Your task to perform on an android device: open app "Microsoft Excel" (install if not already installed) Image 0: 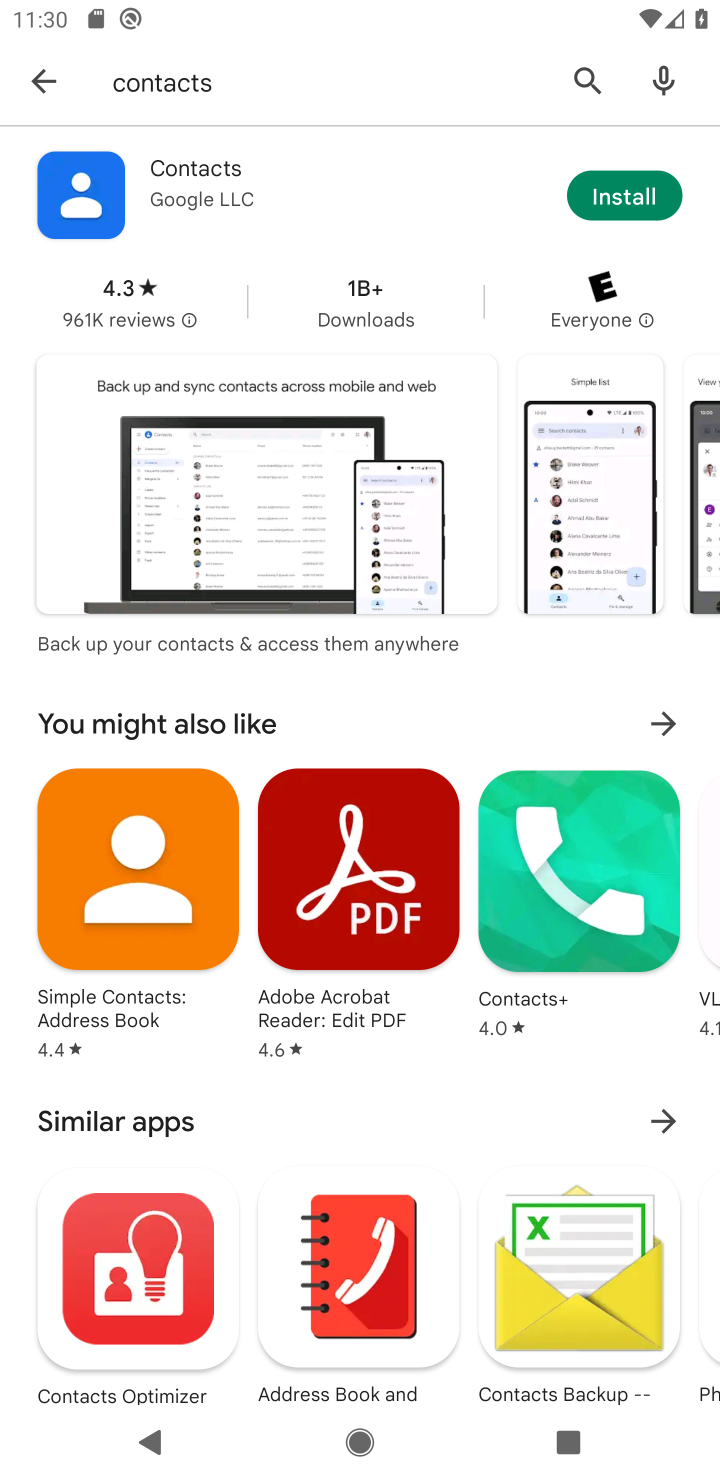
Step 0: press home button
Your task to perform on an android device: open app "Microsoft Excel" (install if not already installed) Image 1: 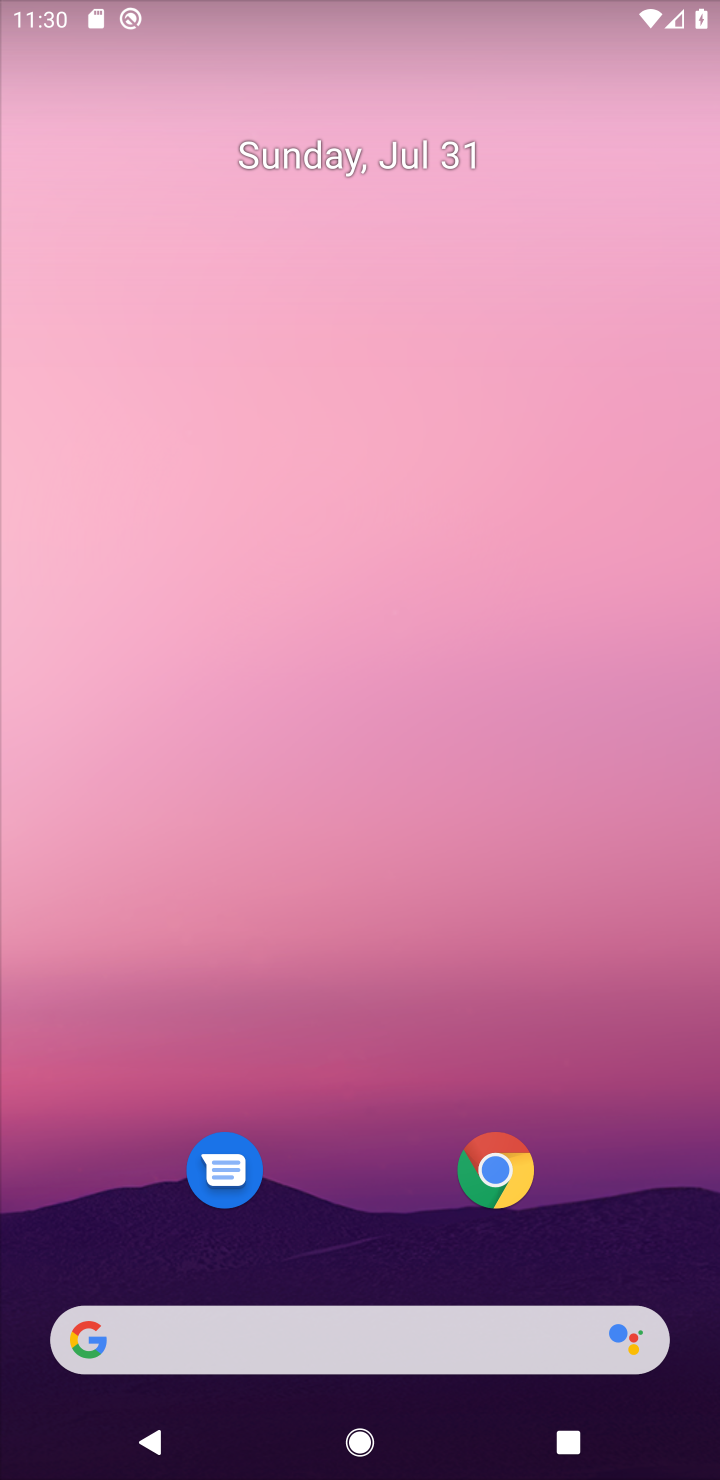
Step 1: drag from (645, 1142) to (347, 28)
Your task to perform on an android device: open app "Microsoft Excel" (install if not already installed) Image 2: 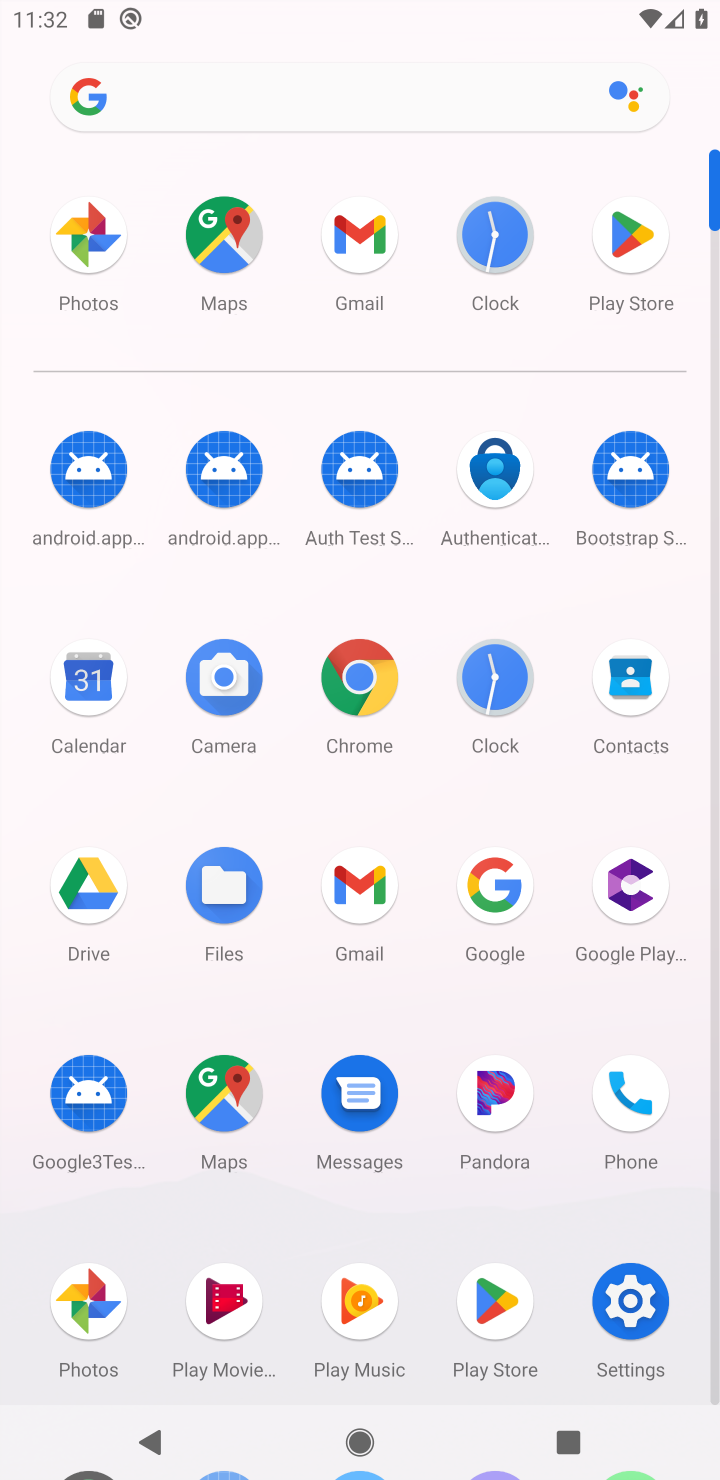
Step 2: click (630, 257)
Your task to perform on an android device: open app "Microsoft Excel" (install if not already installed) Image 3: 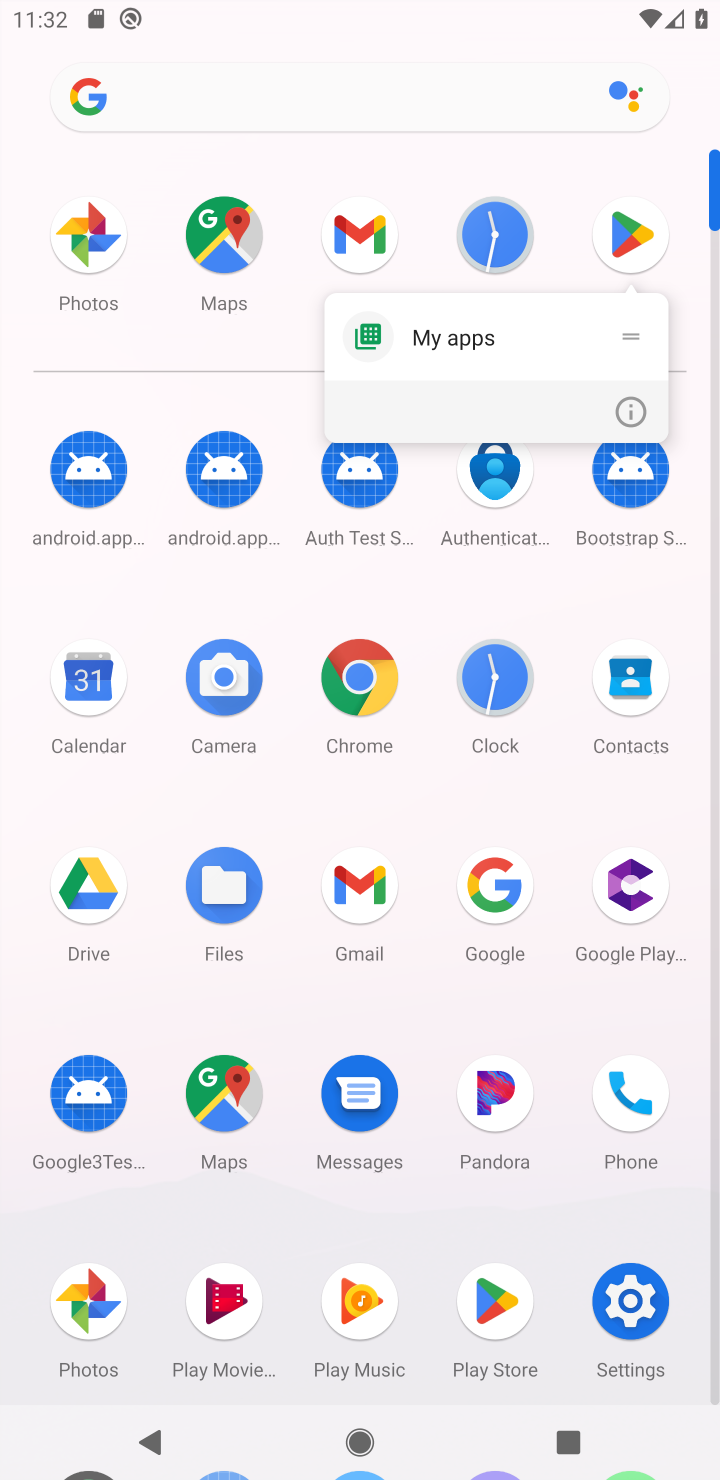
Step 3: click (628, 257)
Your task to perform on an android device: open app "Microsoft Excel" (install if not already installed) Image 4: 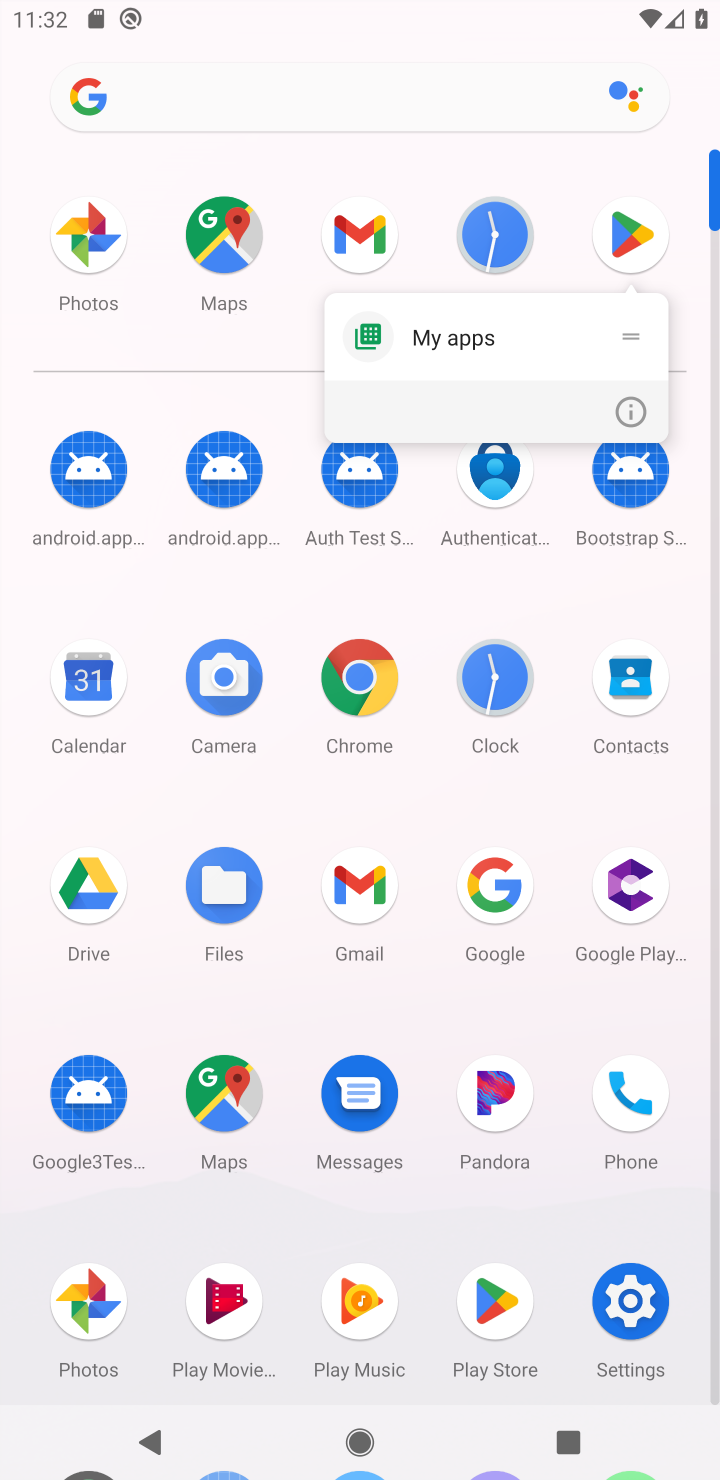
Step 4: click (617, 244)
Your task to perform on an android device: open app "Microsoft Excel" (install if not already installed) Image 5: 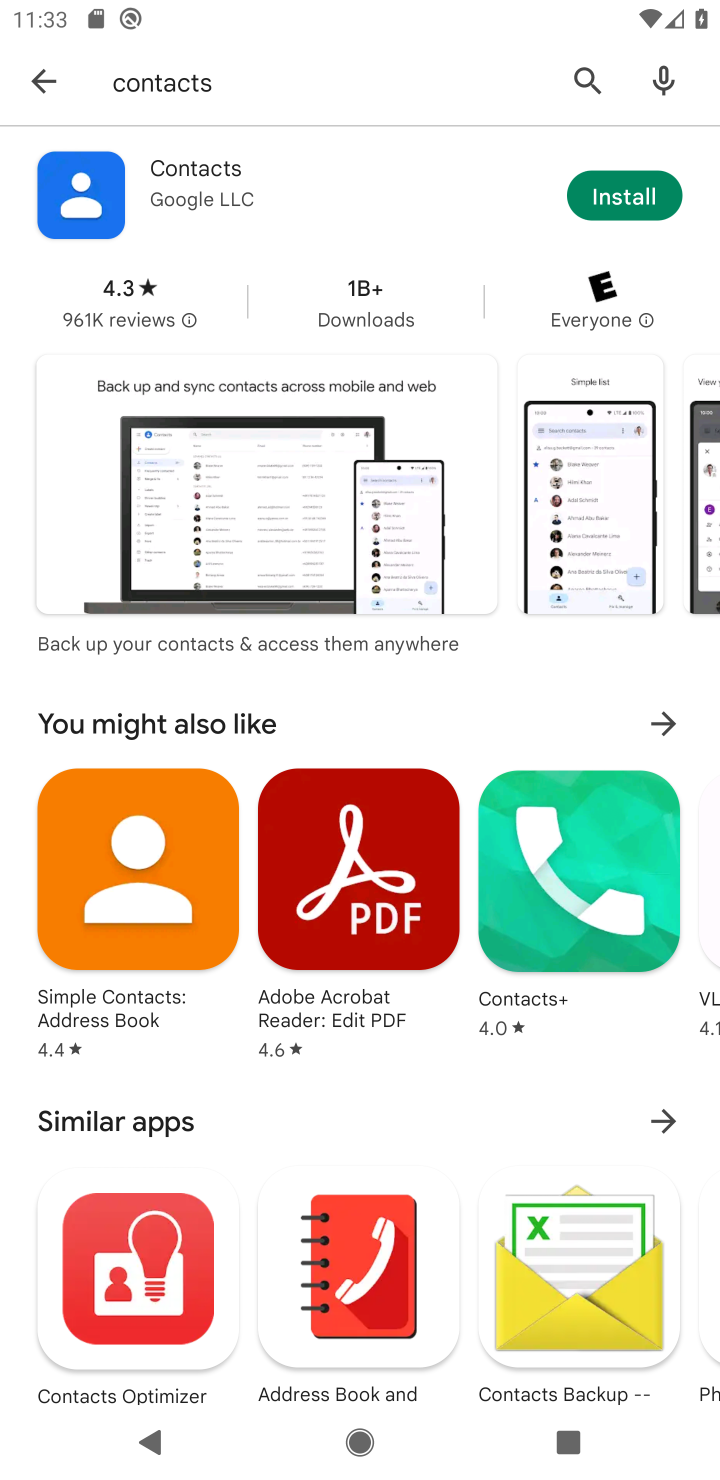
Step 5: press back button
Your task to perform on an android device: open app "Microsoft Excel" (install if not already installed) Image 6: 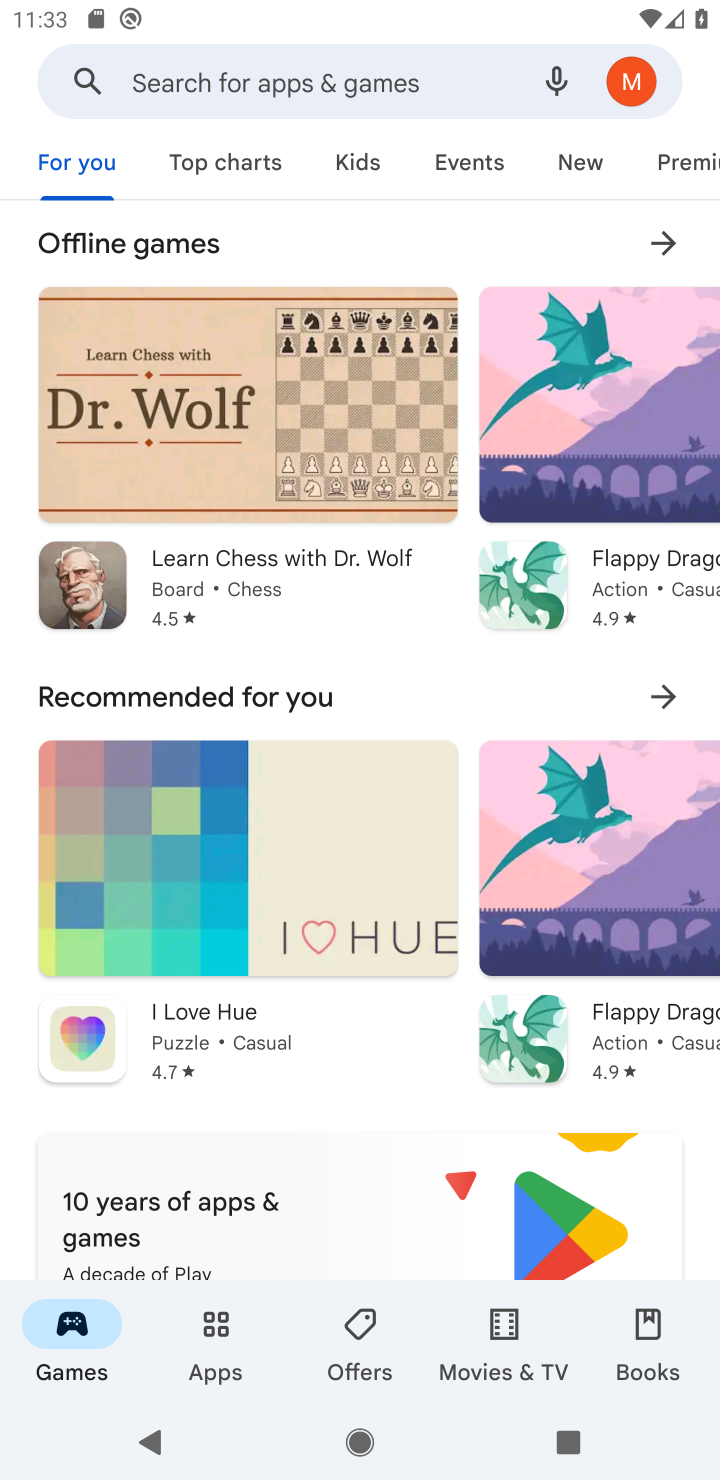
Step 6: click (267, 72)
Your task to perform on an android device: open app "Microsoft Excel" (install if not already installed) Image 7: 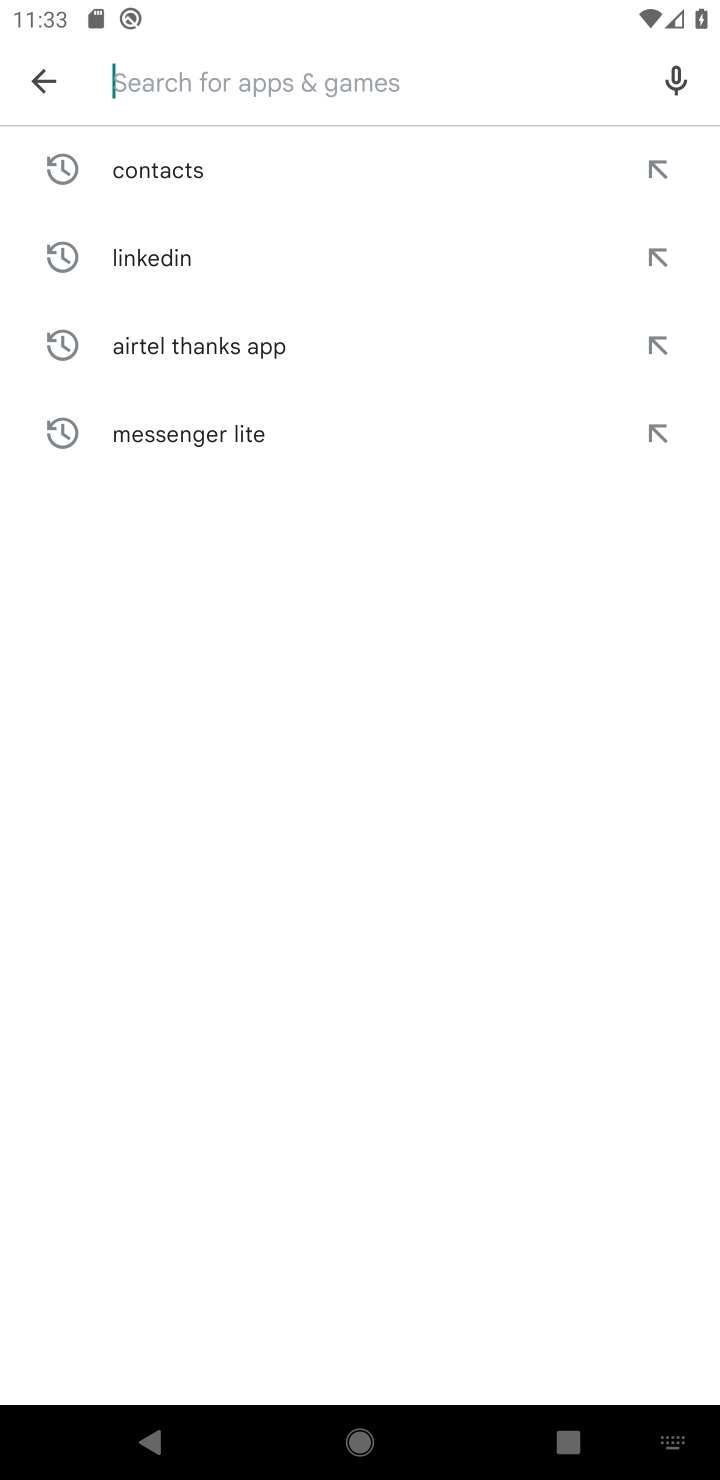
Step 7: type "Microsoft Excel"
Your task to perform on an android device: open app "Microsoft Excel" (install if not already installed) Image 8: 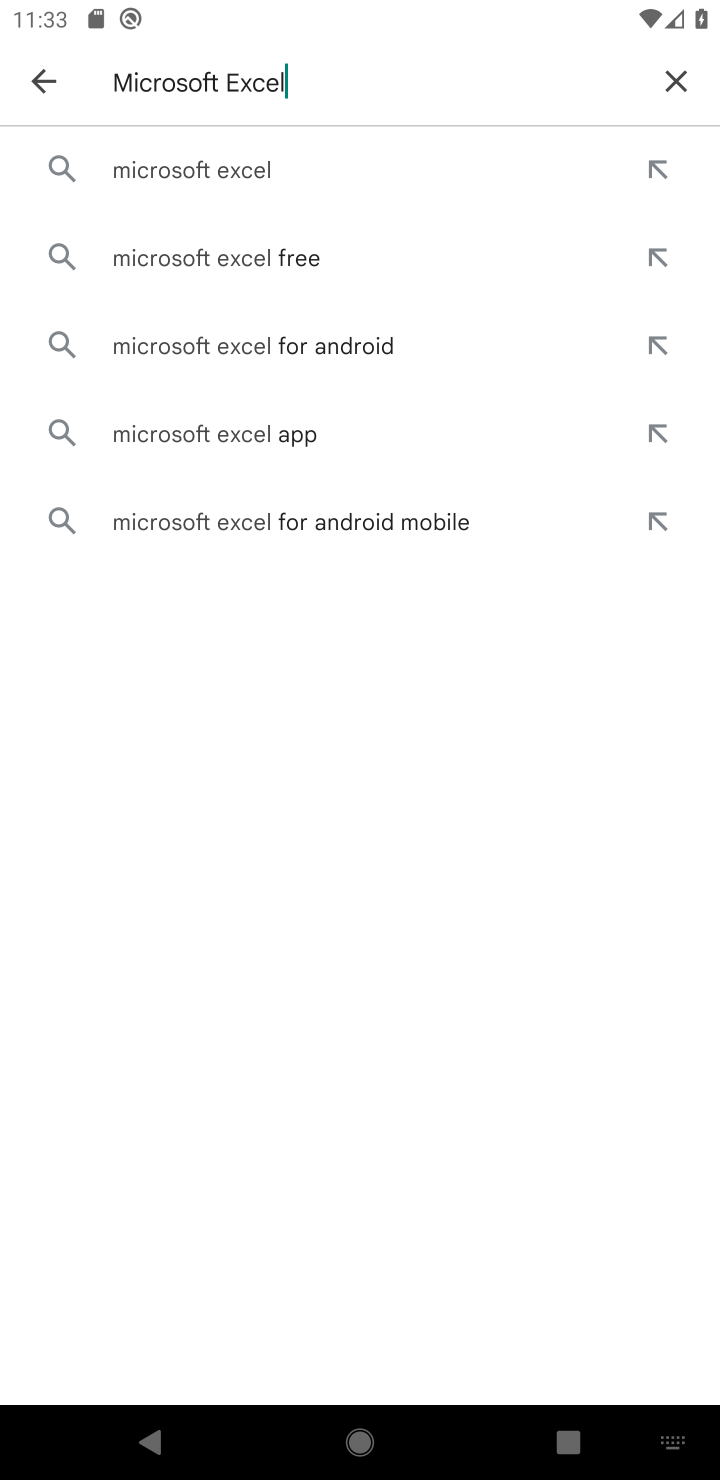
Step 8: click (209, 175)
Your task to perform on an android device: open app "Microsoft Excel" (install if not already installed) Image 9: 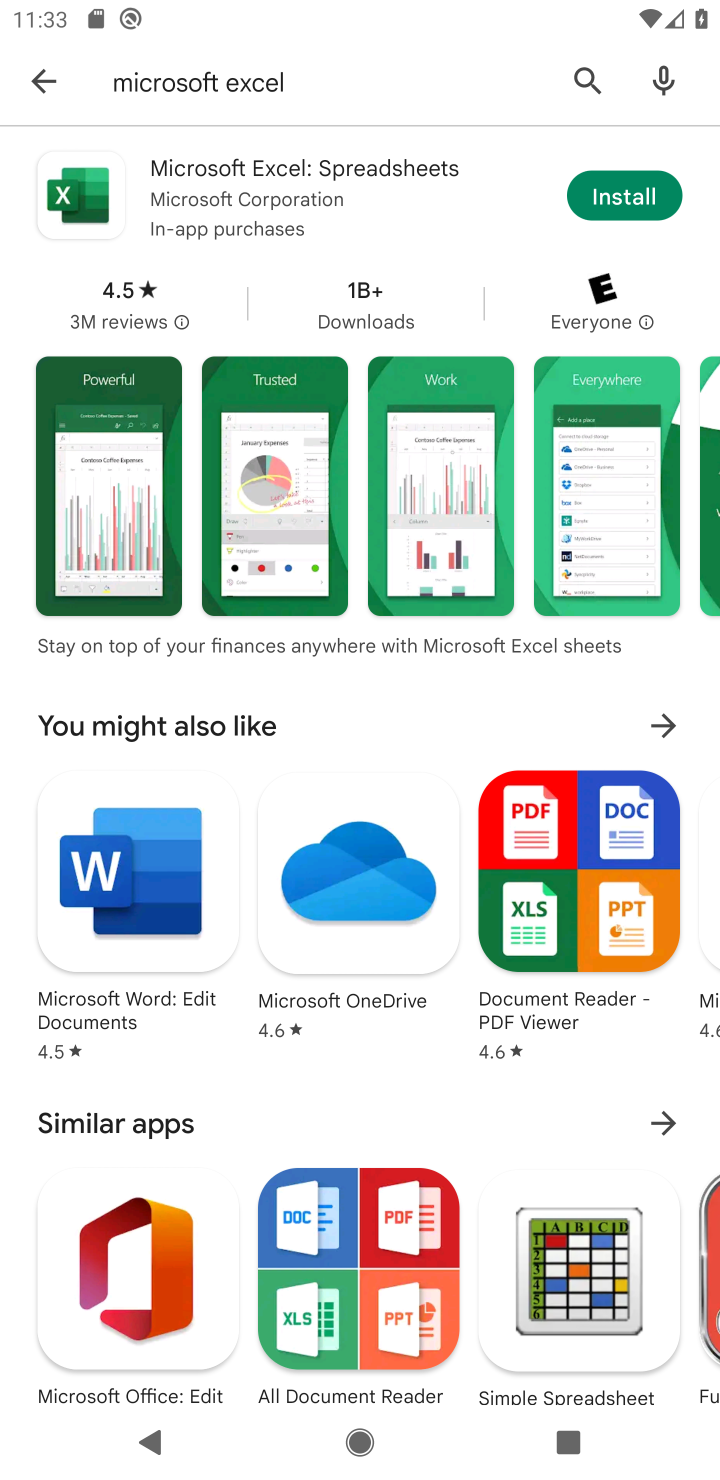
Step 9: task complete